Your task to perform on an android device: open wifi settings Image 0: 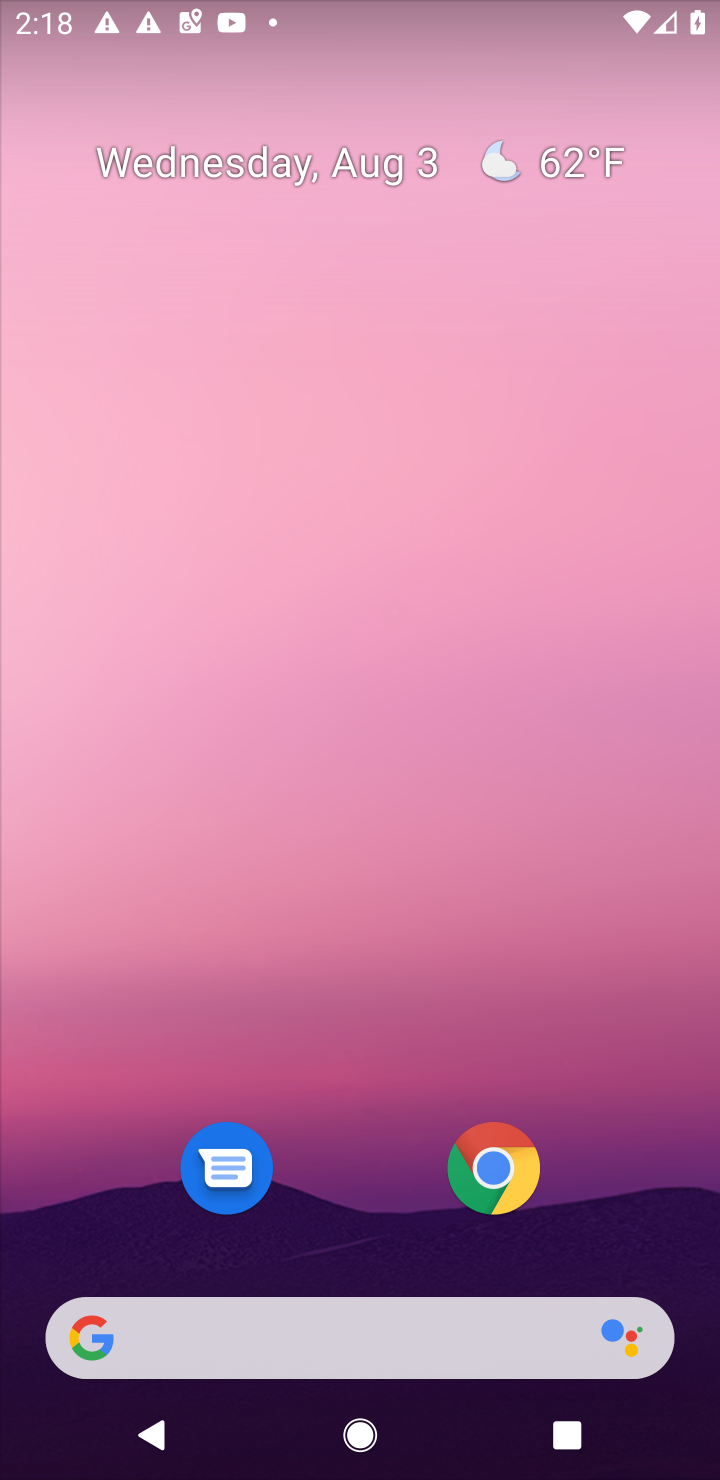
Step 0: drag from (647, 1105) to (597, 198)
Your task to perform on an android device: open wifi settings Image 1: 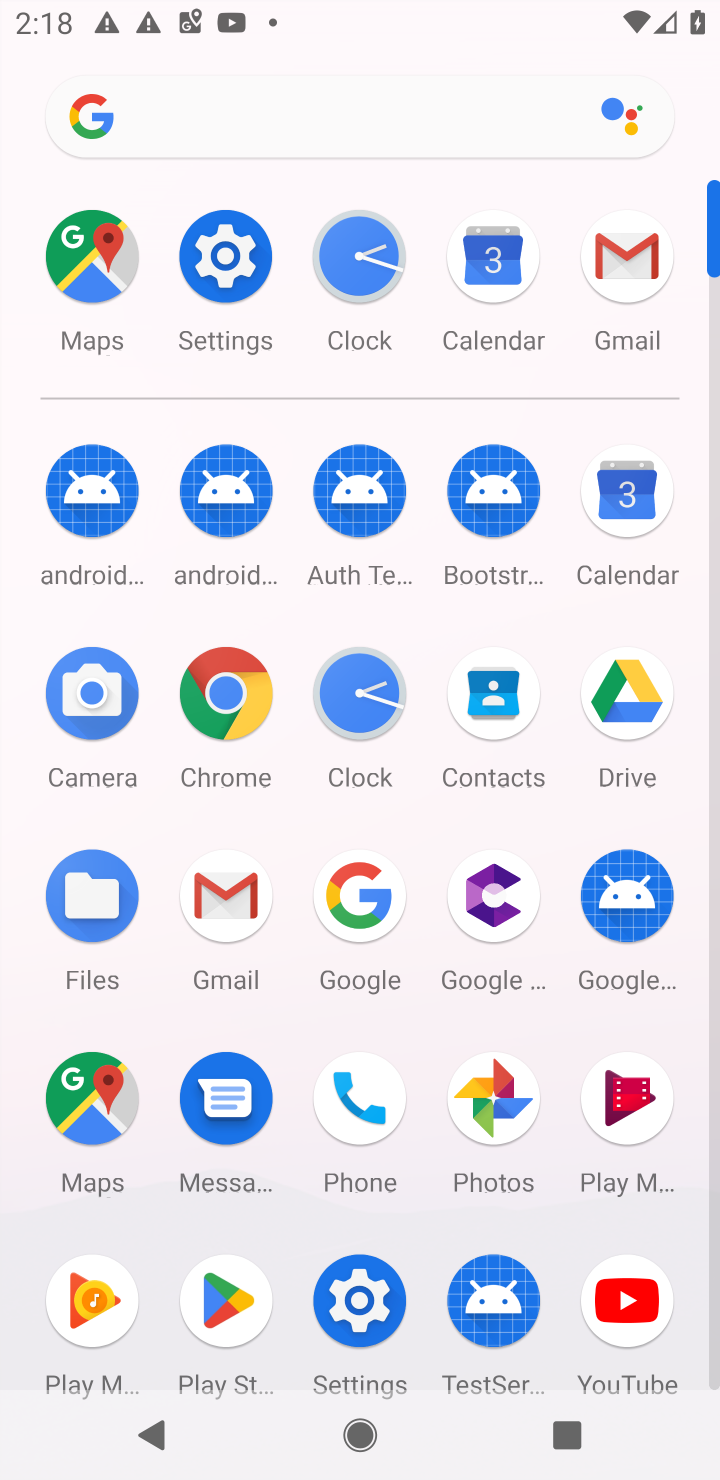
Step 1: click (355, 1302)
Your task to perform on an android device: open wifi settings Image 2: 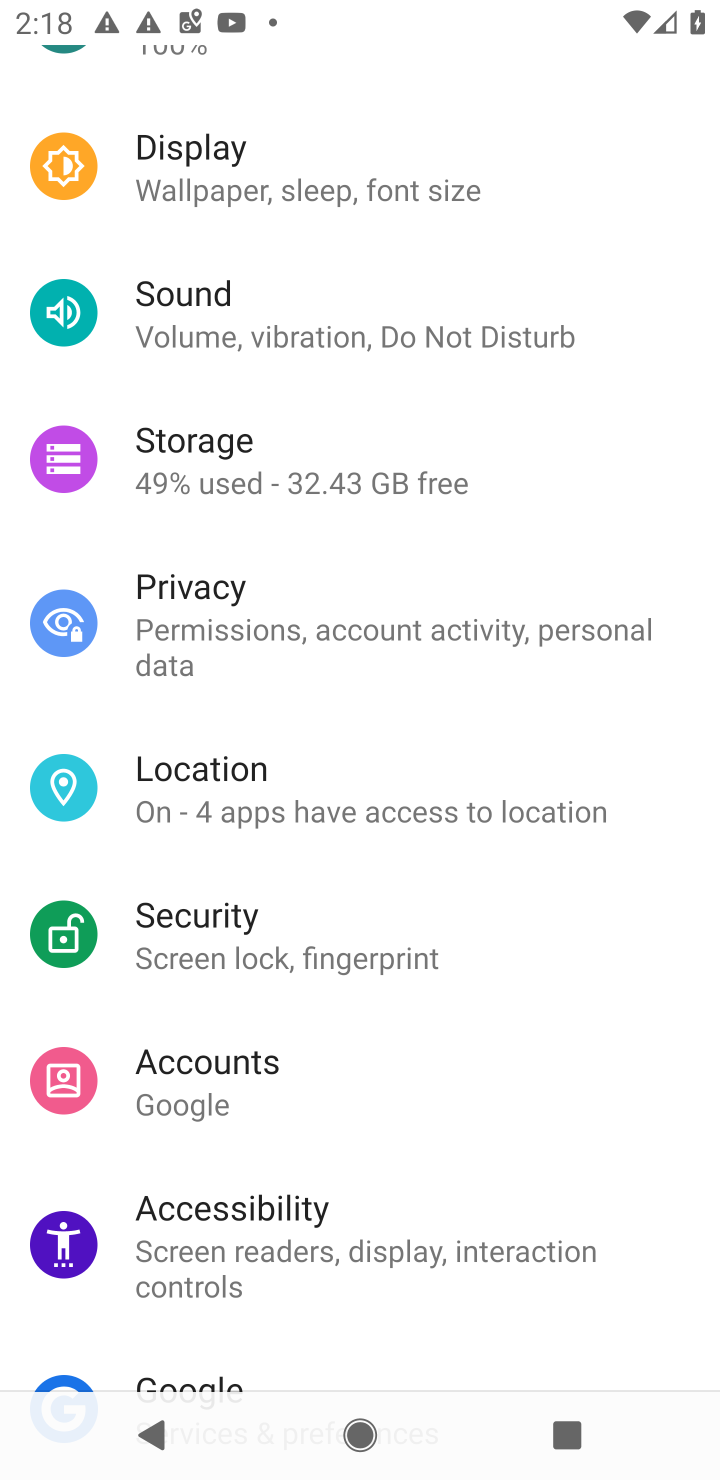
Step 2: drag from (610, 220) to (605, 920)
Your task to perform on an android device: open wifi settings Image 3: 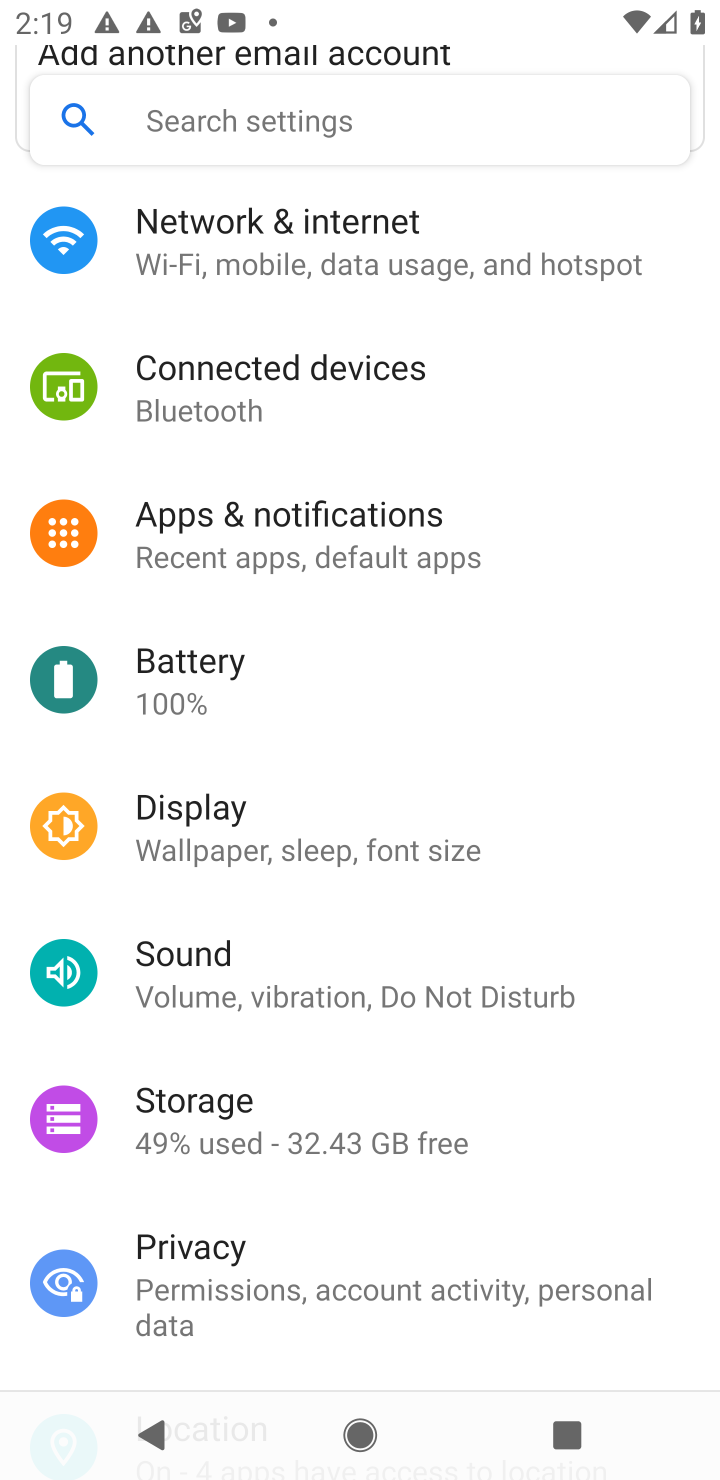
Step 3: drag from (572, 420) to (570, 826)
Your task to perform on an android device: open wifi settings Image 4: 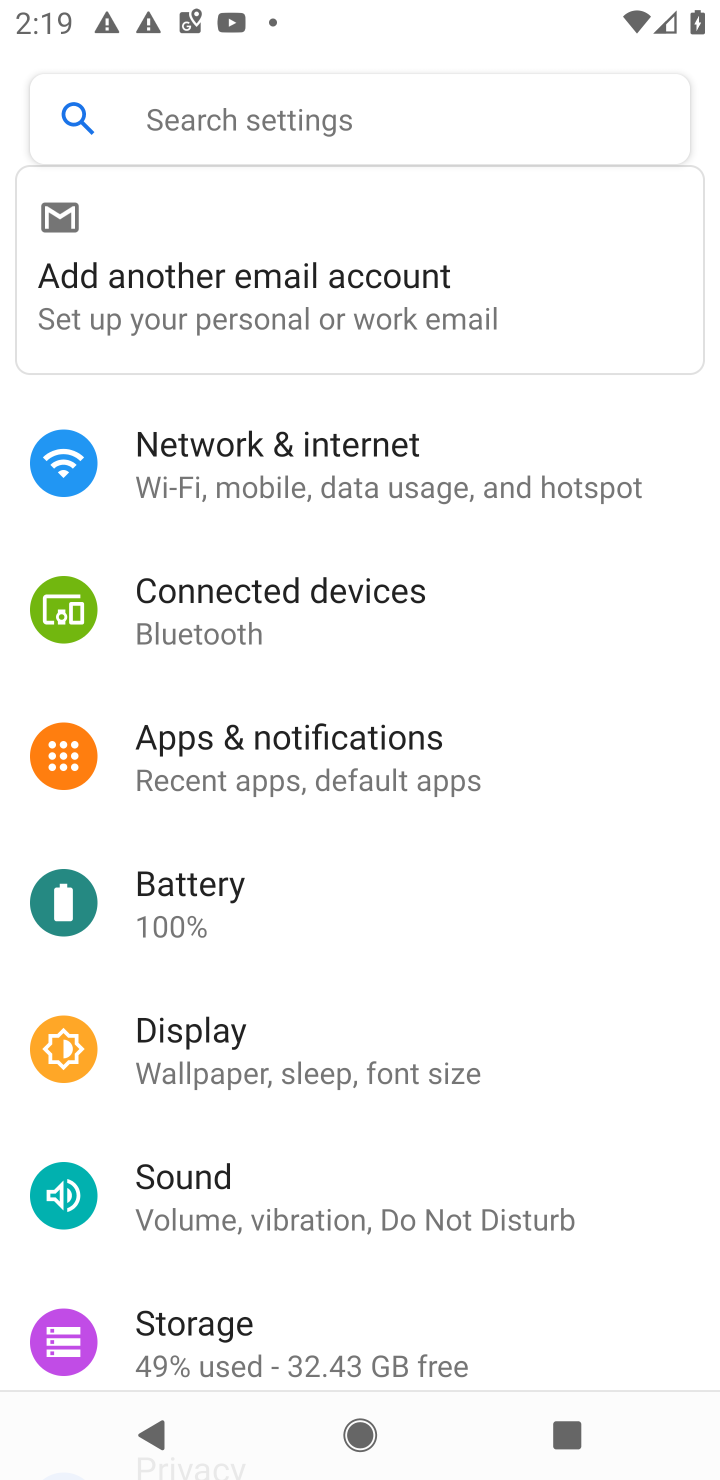
Step 4: click (232, 455)
Your task to perform on an android device: open wifi settings Image 5: 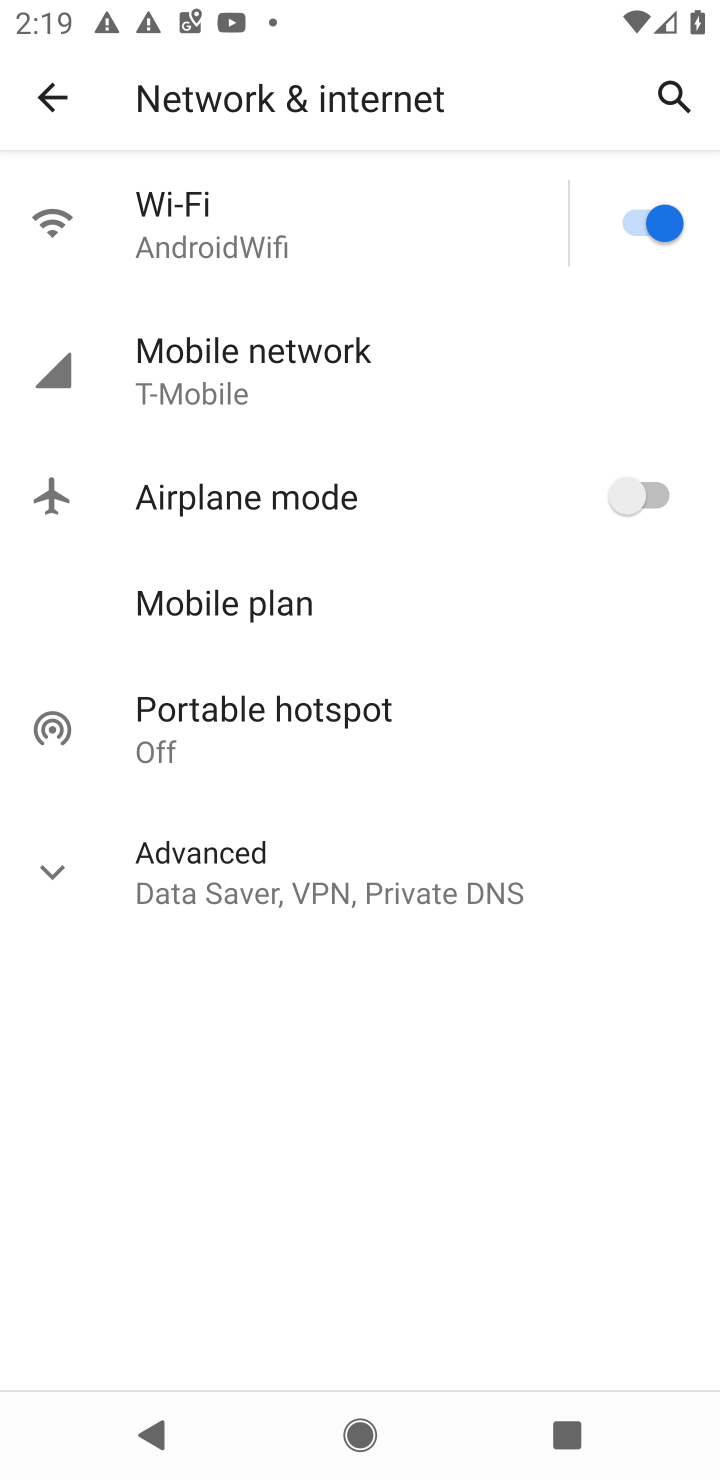
Step 5: click (181, 206)
Your task to perform on an android device: open wifi settings Image 6: 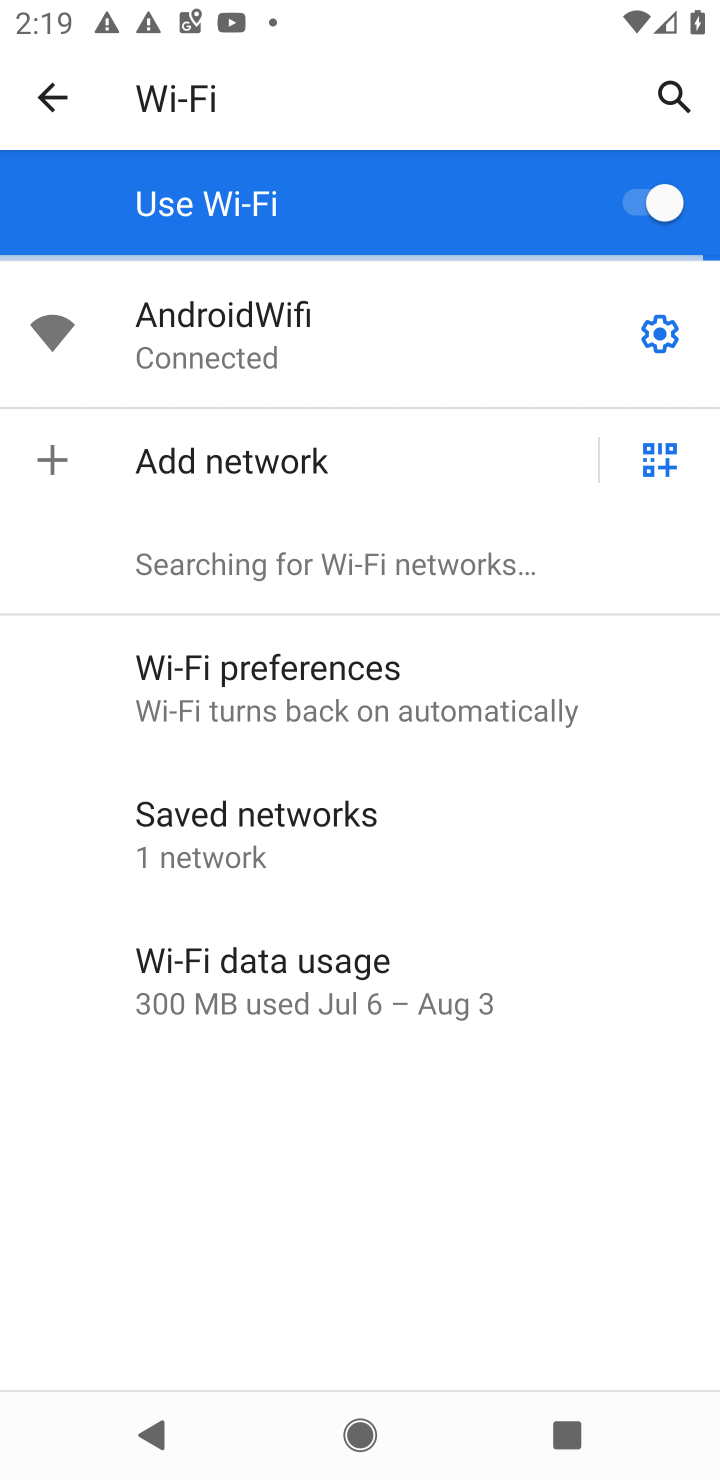
Step 6: click (662, 334)
Your task to perform on an android device: open wifi settings Image 7: 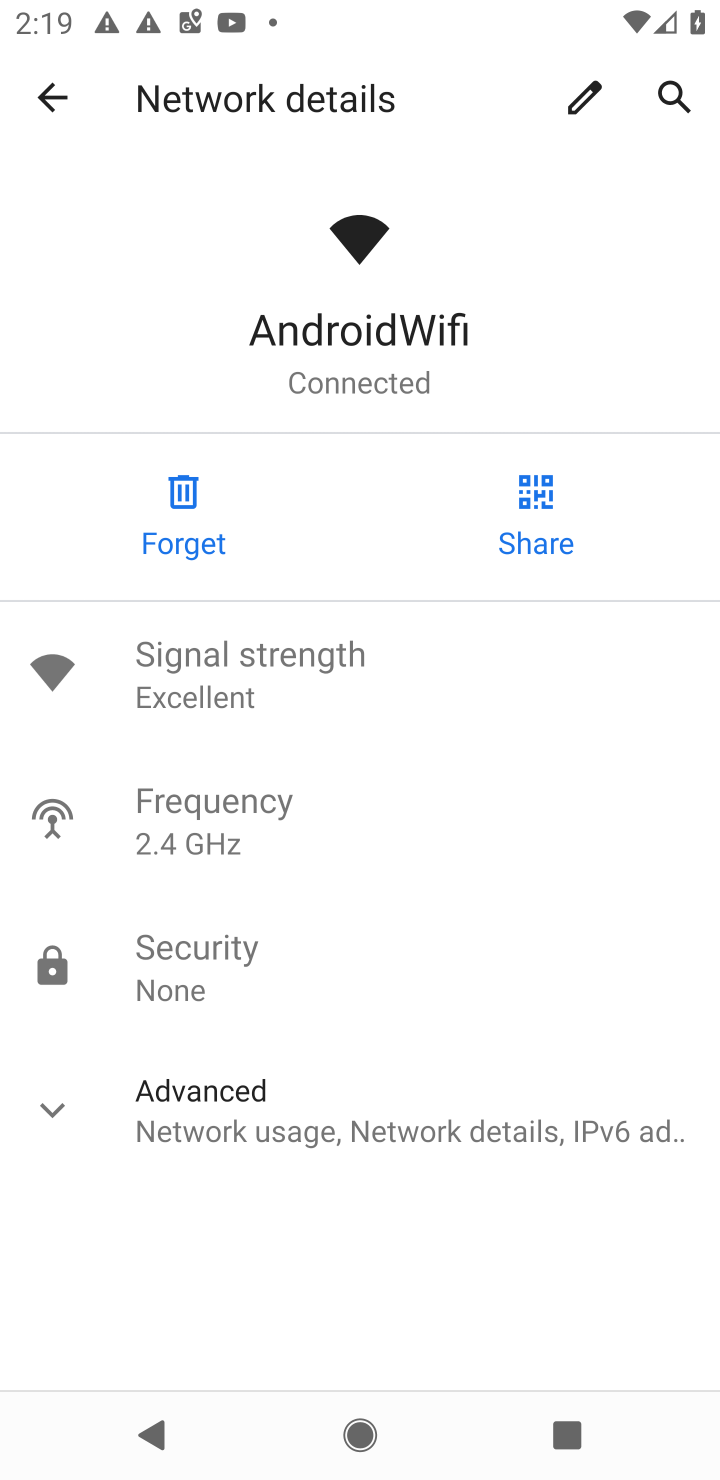
Step 7: task complete